Your task to perform on an android device: toggle improve location accuracy Image 0: 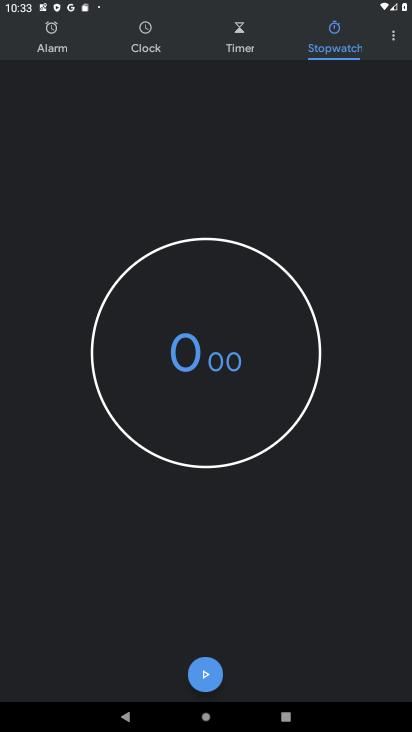
Step 0: press home button
Your task to perform on an android device: toggle improve location accuracy Image 1: 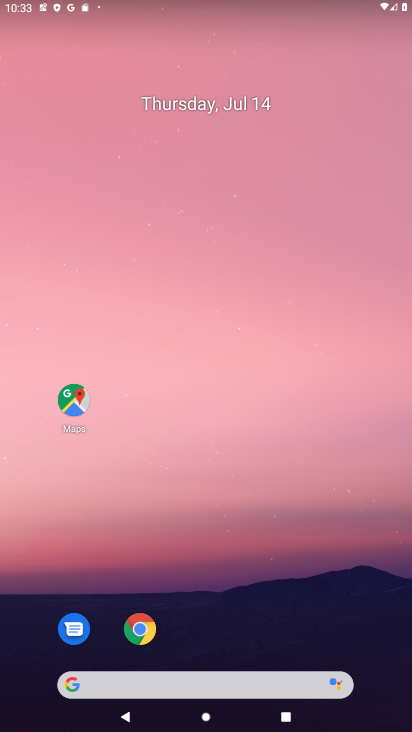
Step 1: drag from (48, 572) to (250, 145)
Your task to perform on an android device: toggle improve location accuracy Image 2: 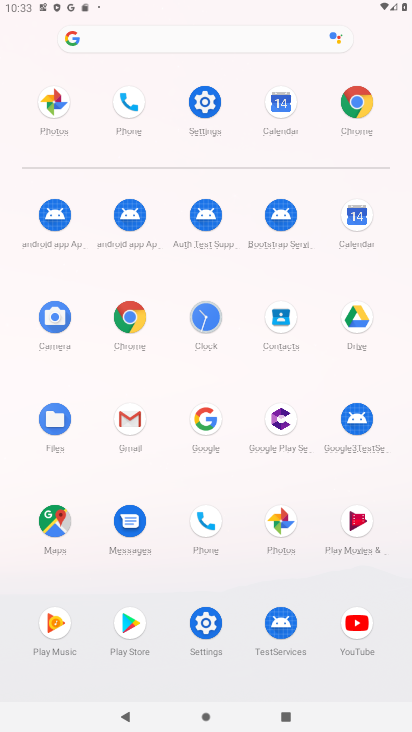
Step 2: click (215, 108)
Your task to perform on an android device: toggle improve location accuracy Image 3: 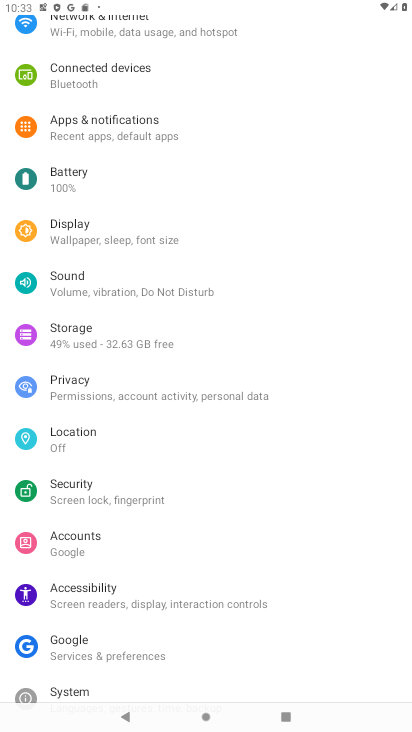
Step 3: click (81, 443)
Your task to perform on an android device: toggle improve location accuracy Image 4: 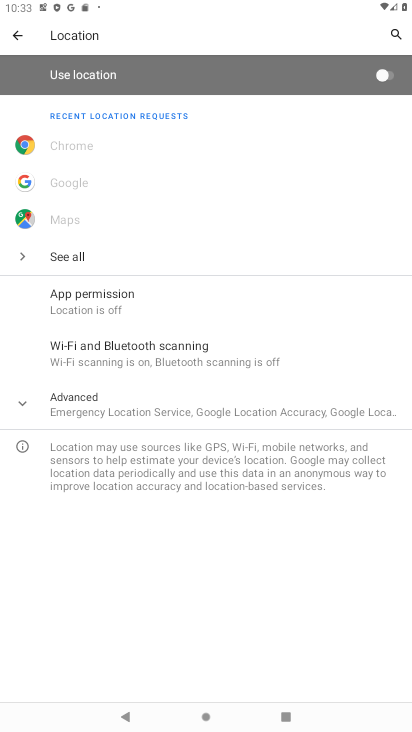
Step 4: click (98, 410)
Your task to perform on an android device: toggle improve location accuracy Image 5: 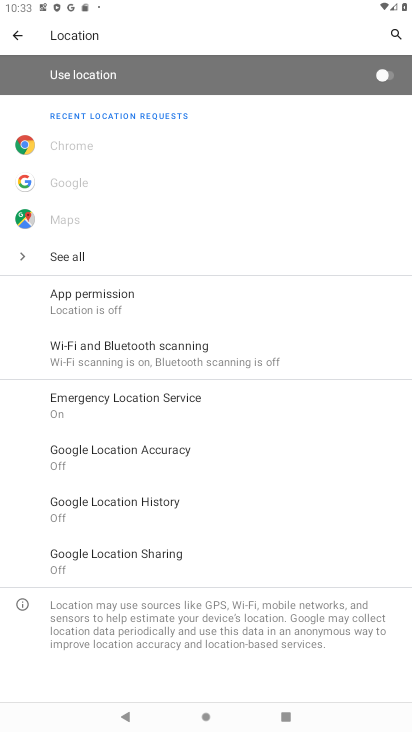
Step 5: click (181, 443)
Your task to perform on an android device: toggle improve location accuracy Image 6: 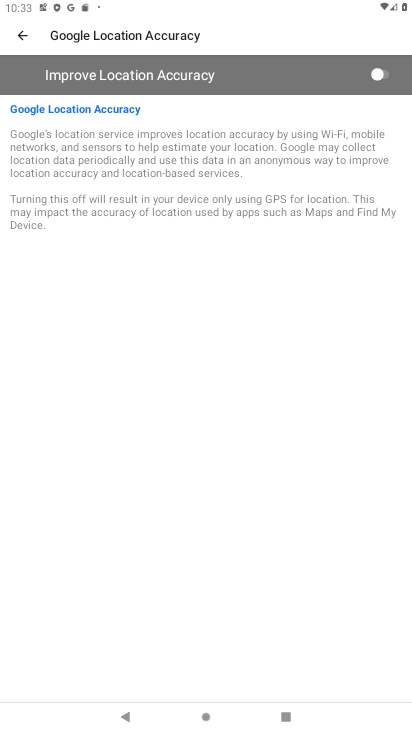
Step 6: click (376, 80)
Your task to perform on an android device: toggle improve location accuracy Image 7: 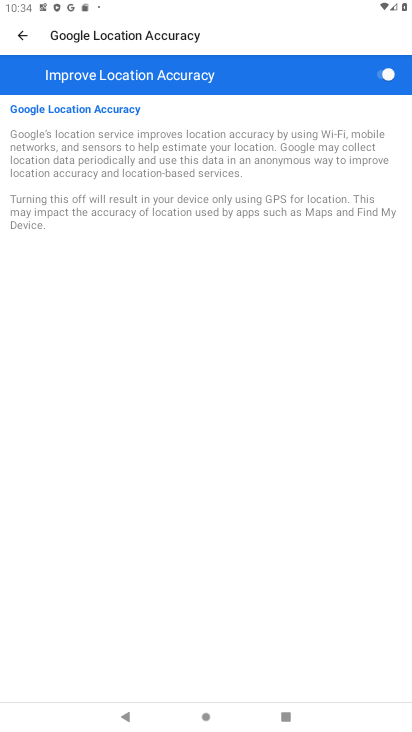
Step 7: task complete